Your task to perform on an android device: Open sound settings Image 0: 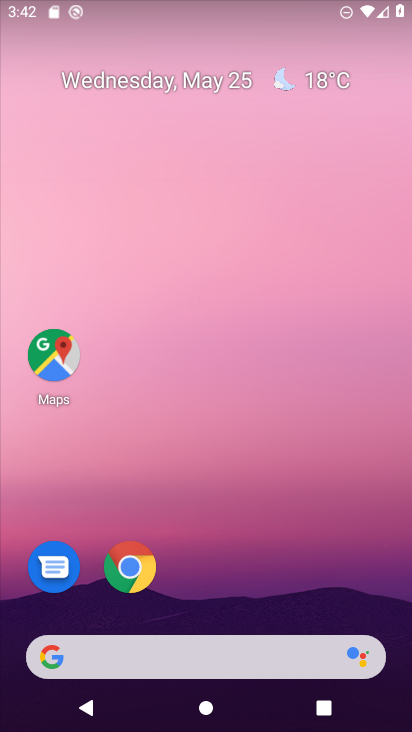
Step 0: drag from (387, 607) to (378, 219)
Your task to perform on an android device: Open sound settings Image 1: 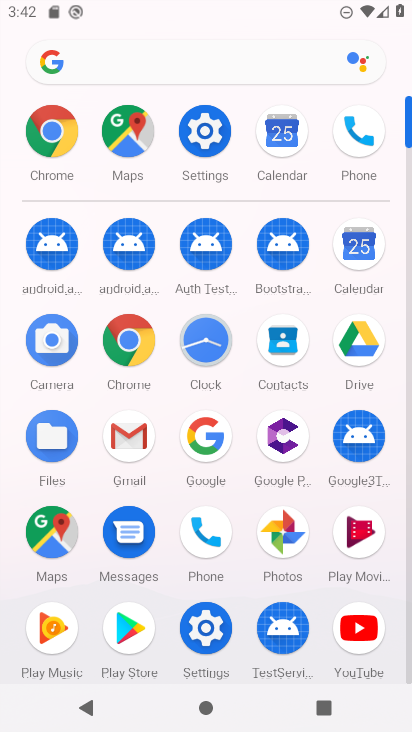
Step 1: click (216, 641)
Your task to perform on an android device: Open sound settings Image 2: 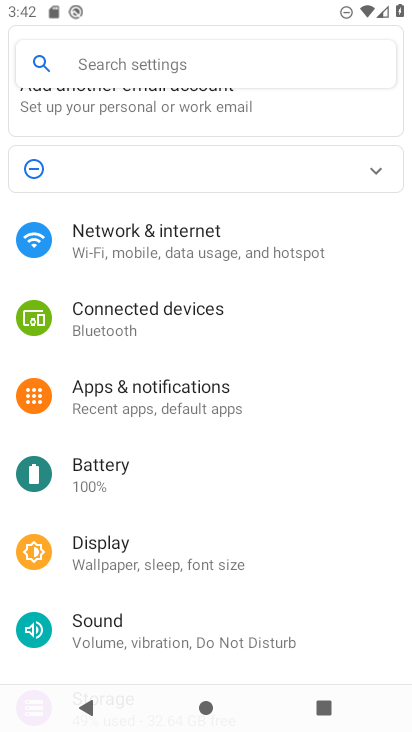
Step 2: drag from (364, 564) to (349, 398)
Your task to perform on an android device: Open sound settings Image 3: 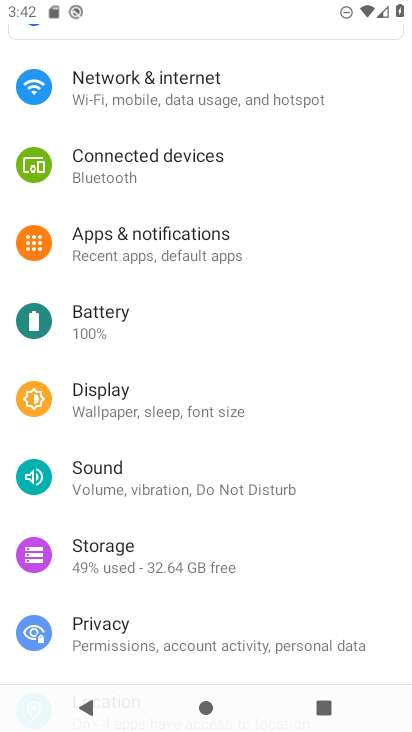
Step 3: drag from (341, 559) to (344, 438)
Your task to perform on an android device: Open sound settings Image 4: 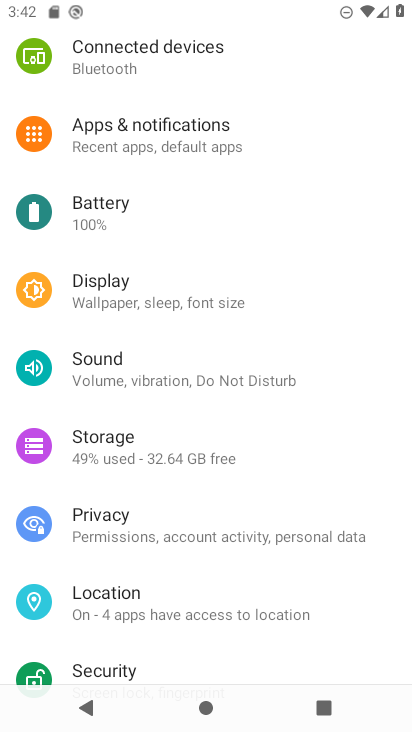
Step 4: drag from (356, 610) to (371, 493)
Your task to perform on an android device: Open sound settings Image 5: 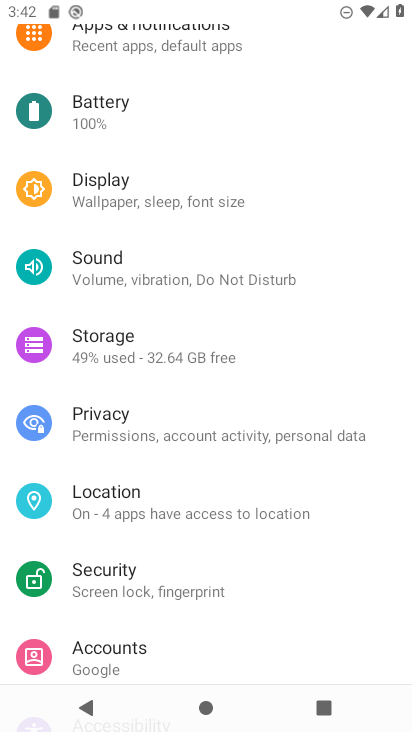
Step 5: drag from (370, 629) to (368, 497)
Your task to perform on an android device: Open sound settings Image 6: 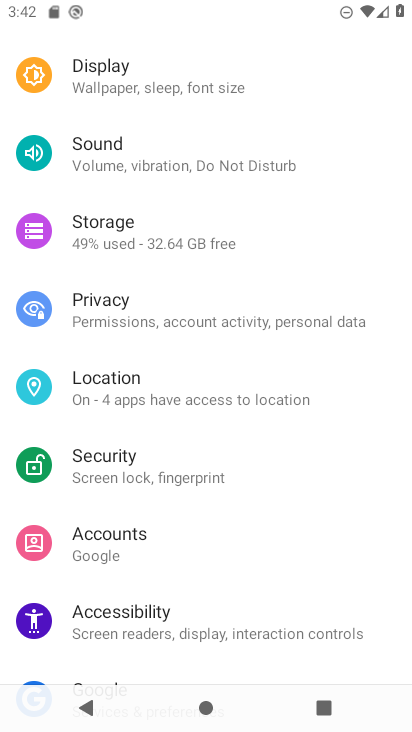
Step 6: drag from (384, 612) to (370, 501)
Your task to perform on an android device: Open sound settings Image 7: 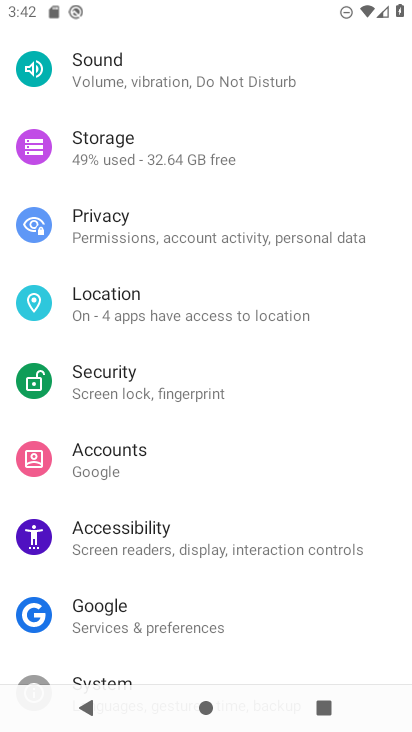
Step 7: drag from (363, 617) to (371, 500)
Your task to perform on an android device: Open sound settings Image 8: 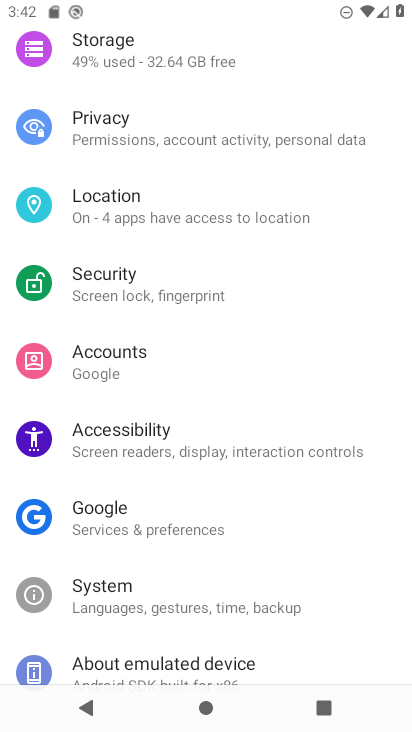
Step 8: drag from (364, 617) to (355, 514)
Your task to perform on an android device: Open sound settings Image 9: 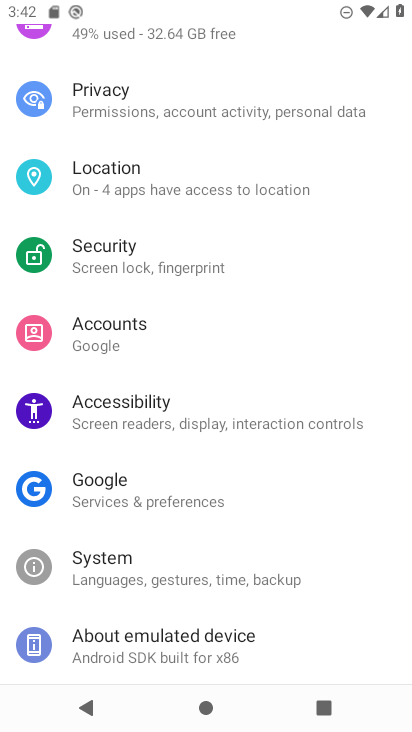
Step 9: drag from (346, 324) to (345, 427)
Your task to perform on an android device: Open sound settings Image 10: 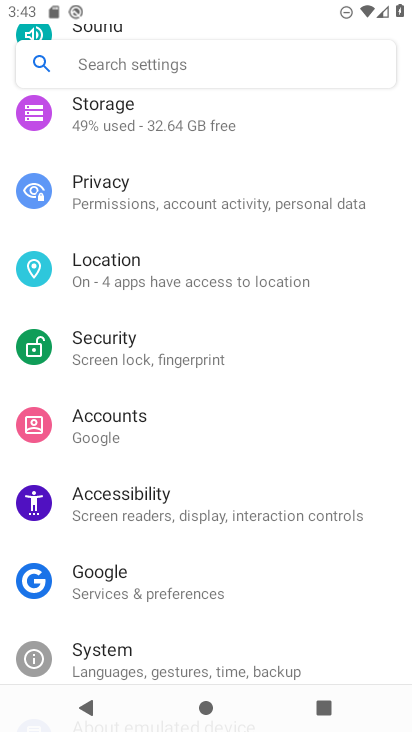
Step 10: drag from (352, 315) to (348, 409)
Your task to perform on an android device: Open sound settings Image 11: 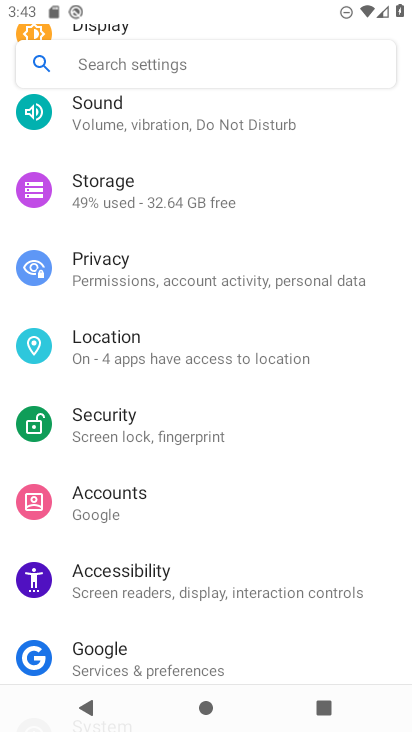
Step 11: drag from (348, 338) to (354, 410)
Your task to perform on an android device: Open sound settings Image 12: 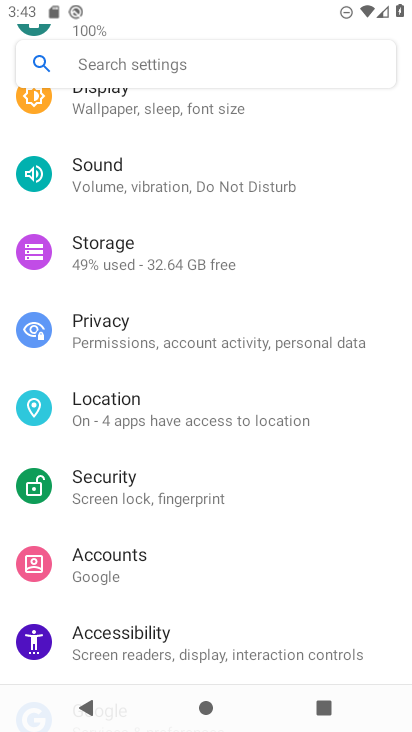
Step 12: drag from (371, 309) to (371, 397)
Your task to perform on an android device: Open sound settings Image 13: 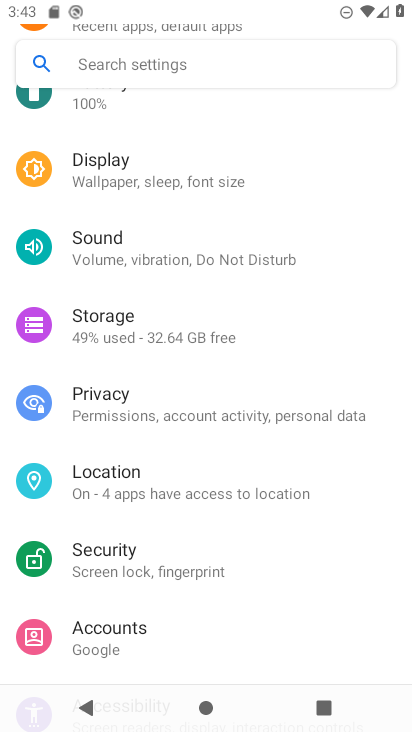
Step 13: drag from (361, 280) to (353, 380)
Your task to perform on an android device: Open sound settings Image 14: 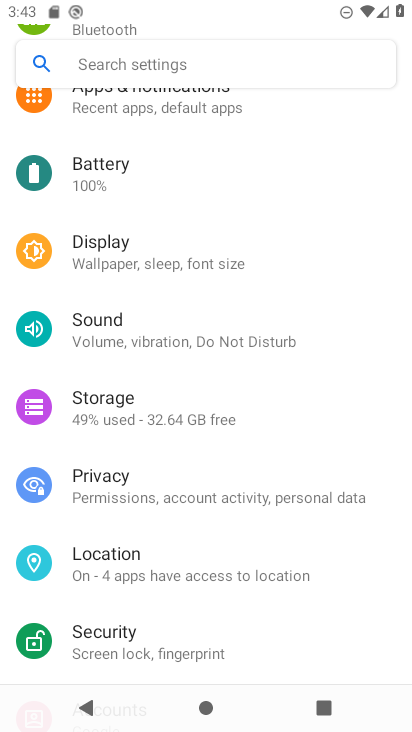
Step 14: drag from (356, 249) to (361, 358)
Your task to perform on an android device: Open sound settings Image 15: 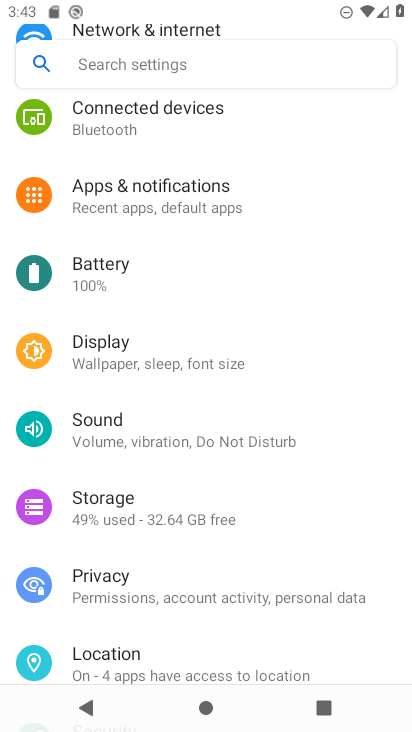
Step 15: drag from (345, 258) to (329, 383)
Your task to perform on an android device: Open sound settings Image 16: 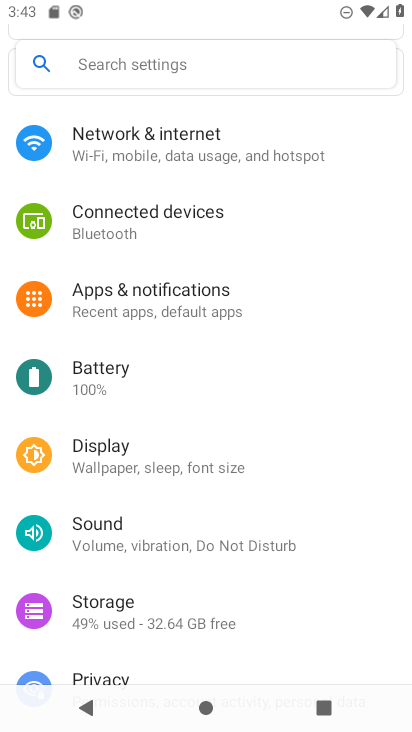
Step 16: click (303, 534)
Your task to perform on an android device: Open sound settings Image 17: 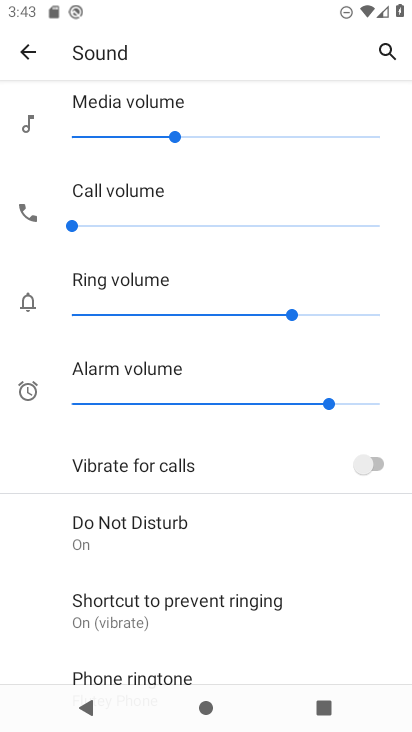
Step 17: task complete